Your task to perform on an android device: turn on showing notifications on the lock screen Image 0: 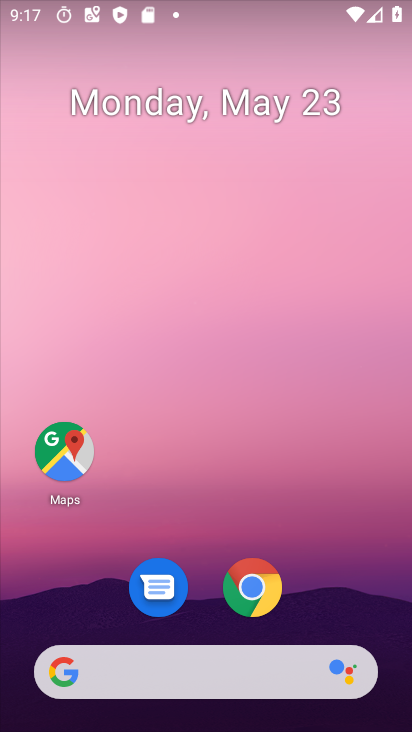
Step 0: drag from (340, 617) to (237, 3)
Your task to perform on an android device: turn on showing notifications on the lock screen Image 1: 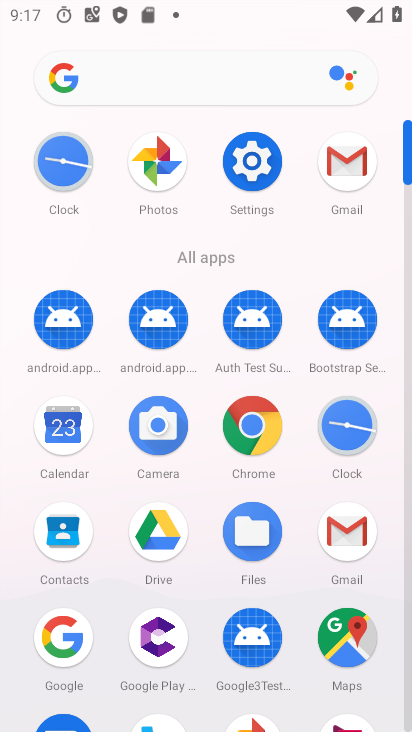
Step 1: click (236, 165)
Your task to perform on an android device: turn on showing notifications on the lock screen Image 2: 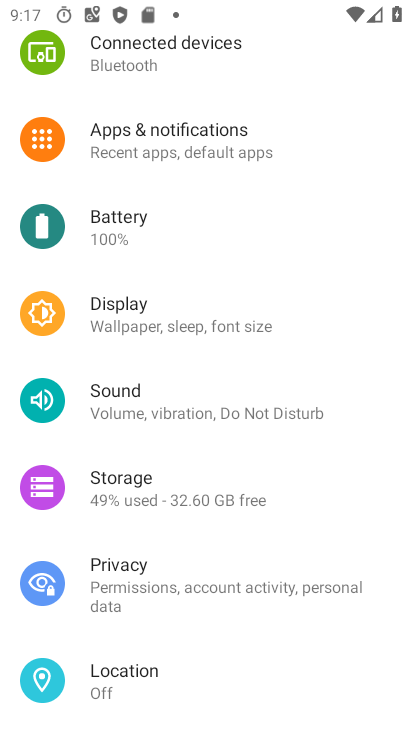
Step 2: click (211, 153)
Your task to perform on an android device: turn on showing notifications on the lock screen Image 3: 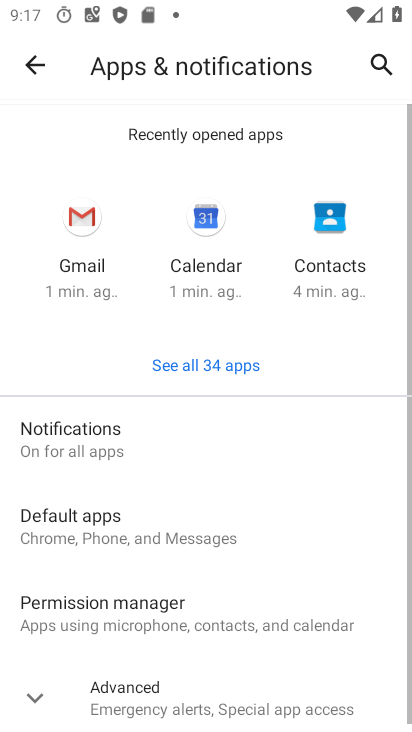
Step 3: click (178, 448)
Your task to perform on an android device: turn on showing notifications on the lock screen Image 4: 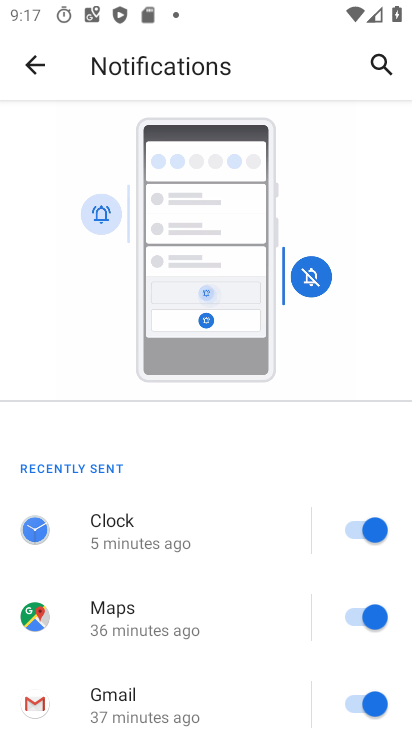
Step 4: drag from (130, 643) to (73, 344)
Your task to perform on an android device: turn on showing notifications on the lock screen Image 5: 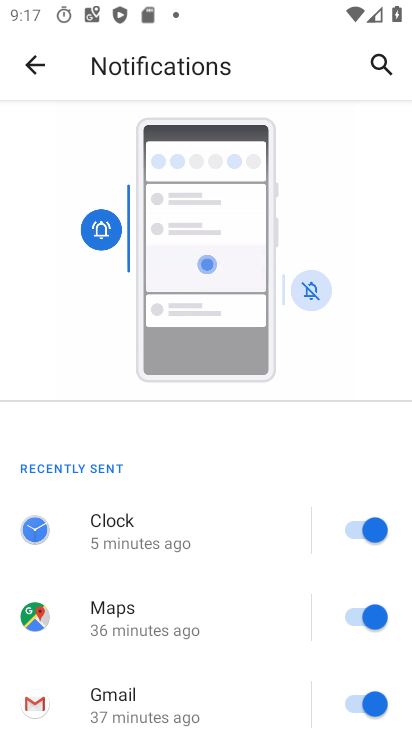
Step 5: drag from (137, 689) to (14, 145)
Your task to perform on an android device: turn on showing notifications on the lock screen Image 6: 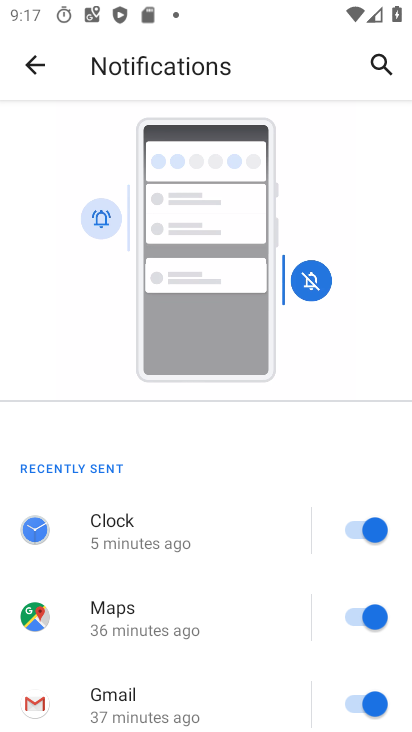
Step 6: drag from (187, 618) to (246, 71)
Your task to perform on an android device: turn on showing notifications on the lock screen Image 7: 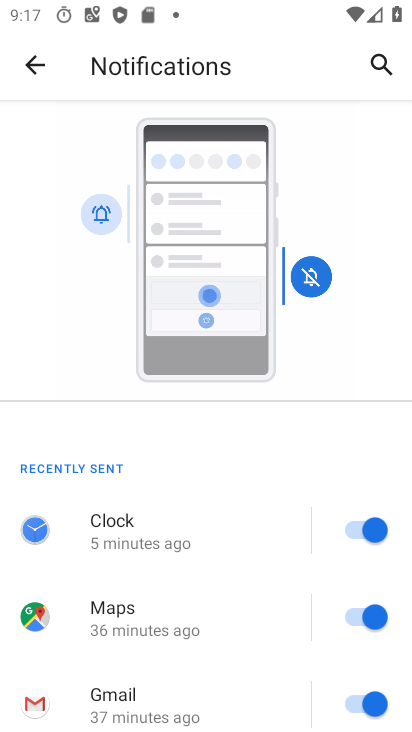
Step 7: drag from (253, 563) to (361, 164)
Your task to perform on an android device: turn on showing notifications on the lock screen Image 8: 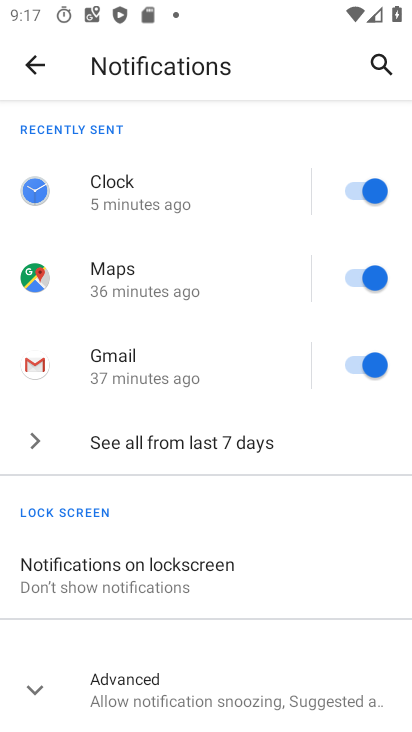
Step 8: click (181, 581)
Your task to perform on an android device: turn on showing notifications on the lock screen Image 9: 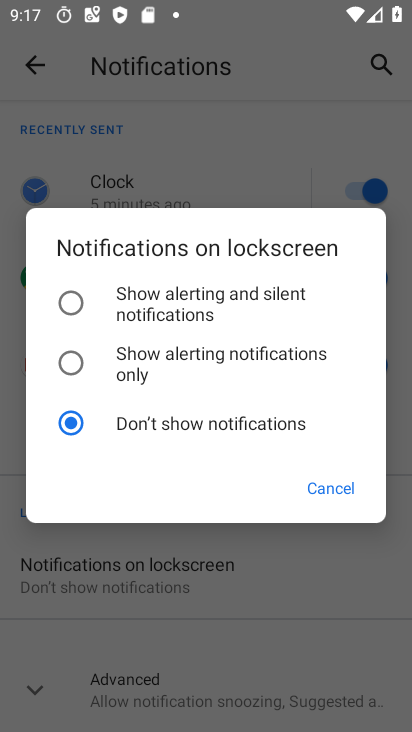
Step 9: click (213, 353)
Your task to perform on an android device: turn on showing notifications on the lock screen Image 10: 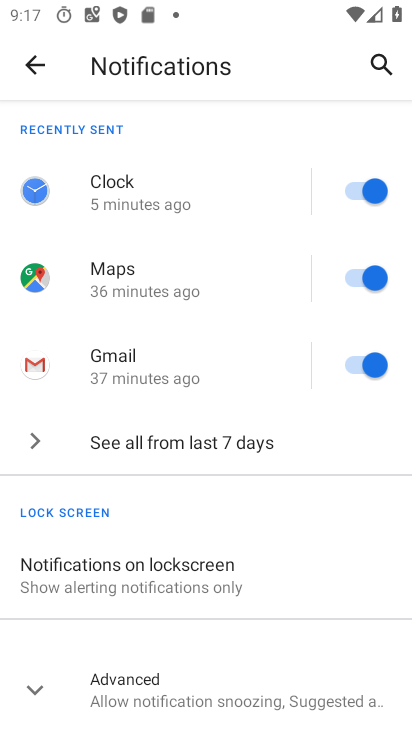
Step 10: task complete